Your task to perform on an android device: turn on sleep mode Image 0: 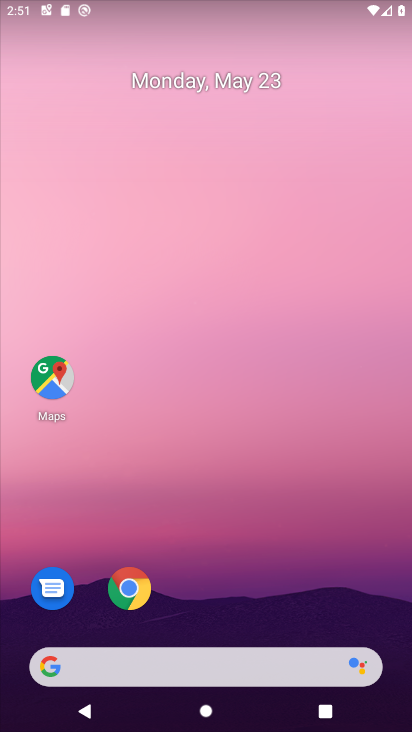
Step 0: drag from (226, 614) to (305, 11)
Your task to perform on an android device: turn on sleep mode Image 1: 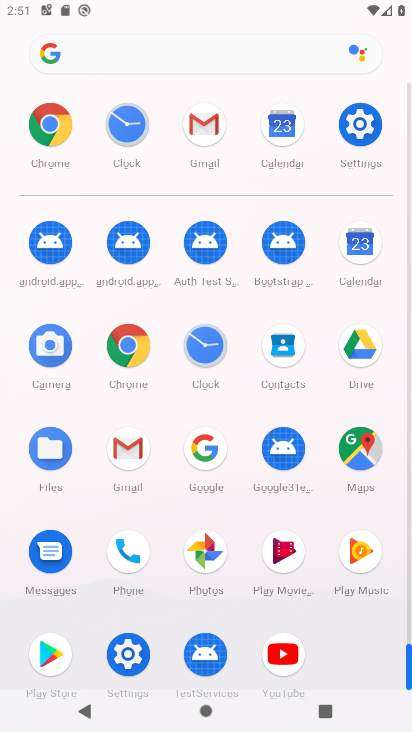
Step 1: click (375, 125)
Your task to perform on an android device: turn on sleep mode Image 2: 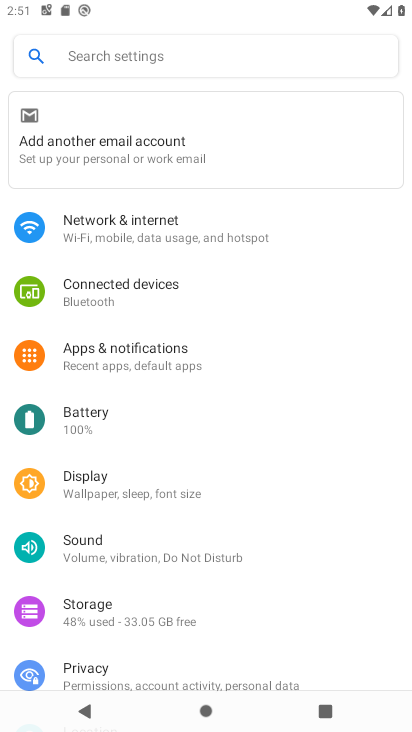
Step 2: drag from (174, 631) to (212, 148)
Your task to perform on an android device: turn on sleep mode Image 3: 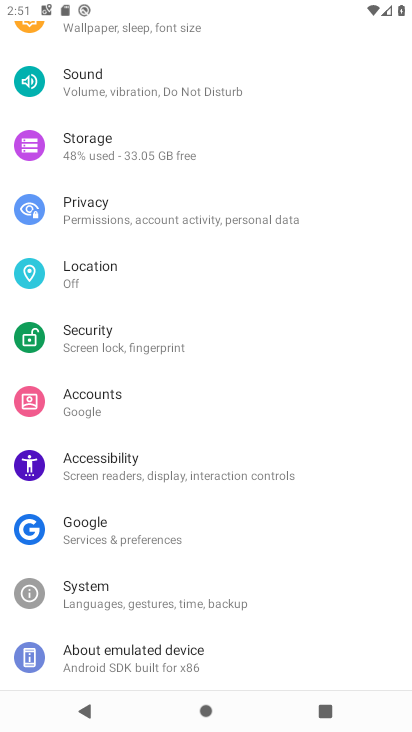
Step 3: drag from (176, 89) to (212, 470)
Your task to perform on an android device: turn on sleep mode Image 4: 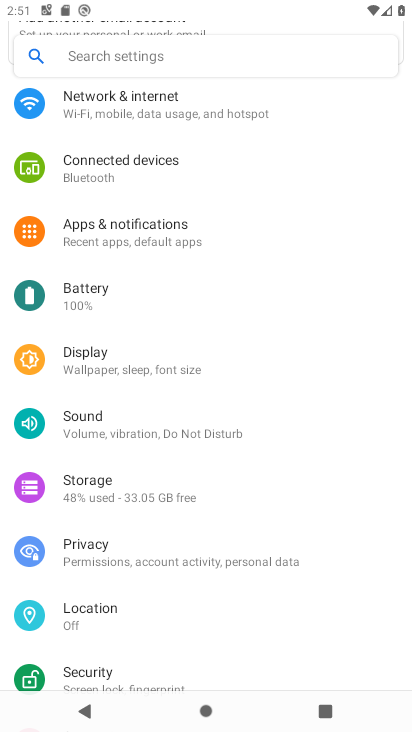
Step 4: click (177, 370)
Your task to perform on an android device: turn on sleep mode Image 5: 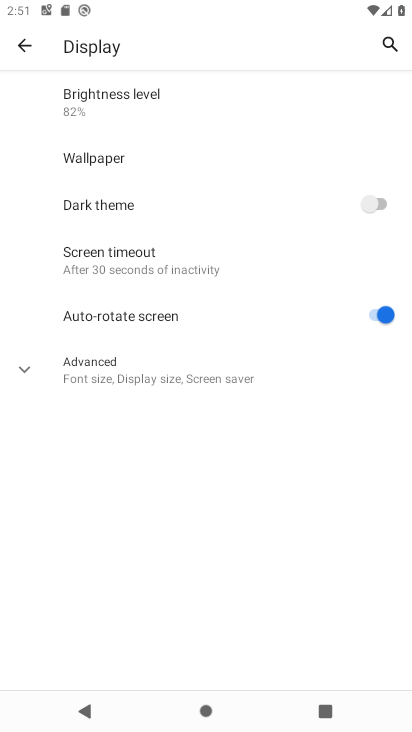
Step 5: click (178, 270)
Your task to perform on an android device: turn on sleep mode Image 6: 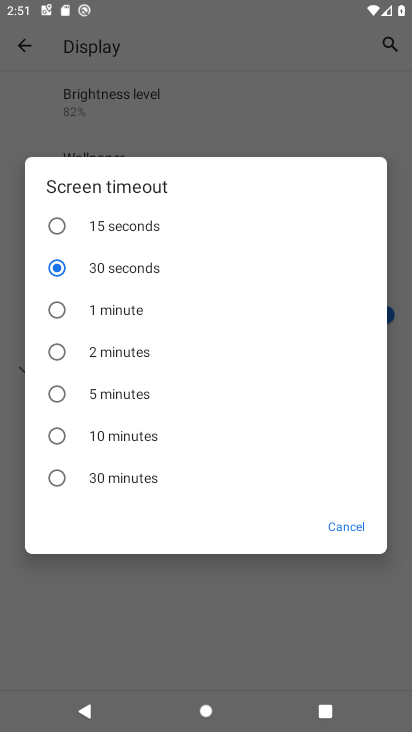
Step 6: task complete